Your task to perform on an android device: open device folders in google photos Image 0: 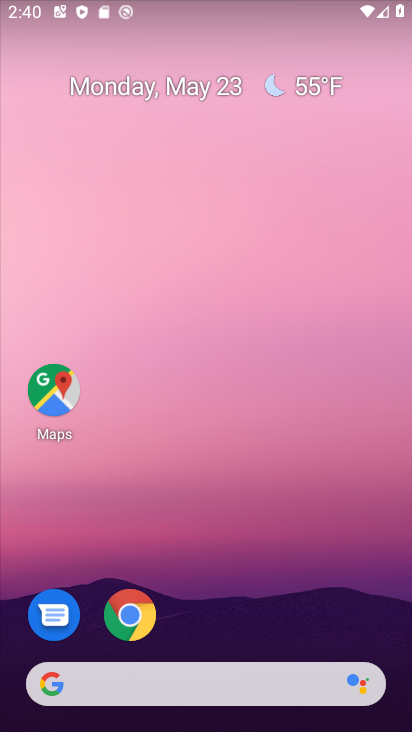
Step 0: drag from (373, 639) to (376, 207)
Your task to perform on an android device: open device folders in google photos Image 1: 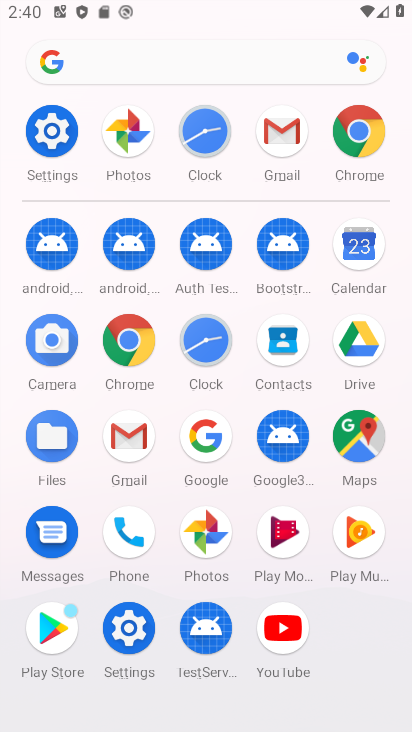
Step 1: click (217, 541)
Your task to perform on an android device: open device folders in google photos Image 2: 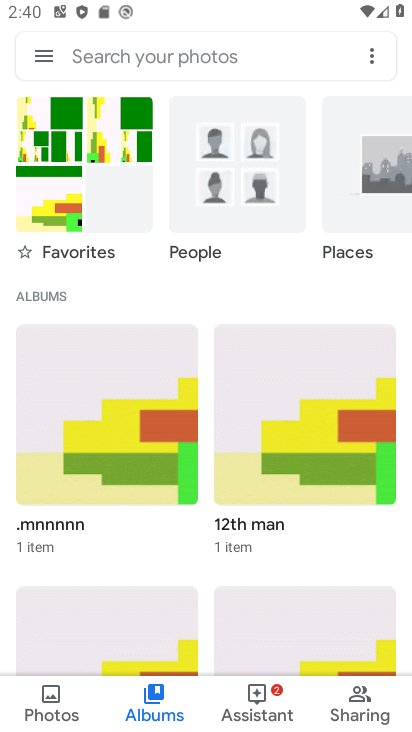
Step 2: click (45, 59)
Your task to perform on an android device: open device folders in google photos Image 3: 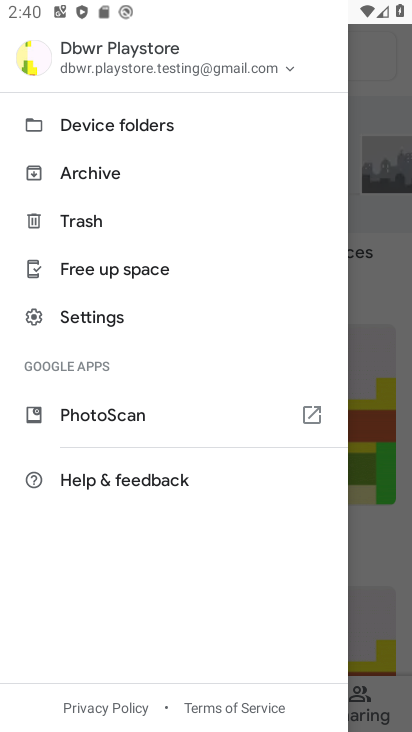
Step 3: click (152, 139)
Your task to perform on an android device: open device folders in google photos Image 4: 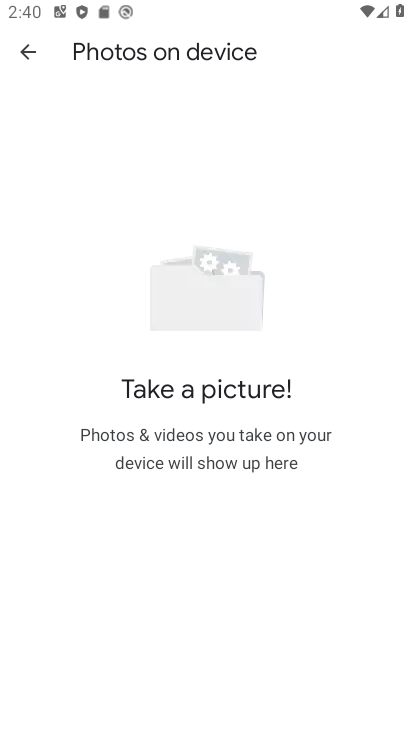
Step 4: task complete